Your task to perform on an android device: open sync settings in chrome Image 0: 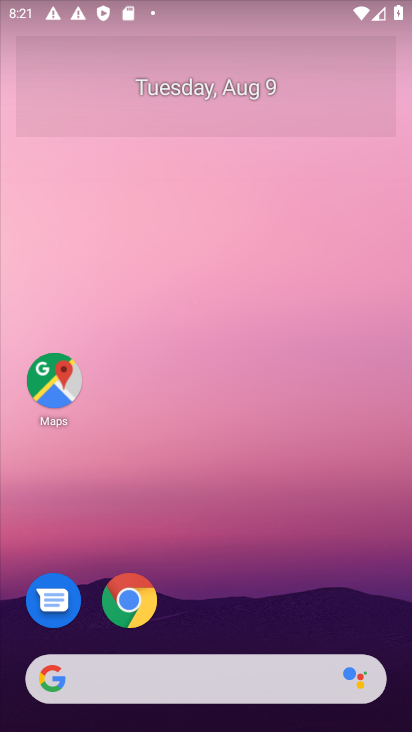
Step 0: click (121, 600)
Your task to perform on an android device: open sync settings in chrome Image 1: 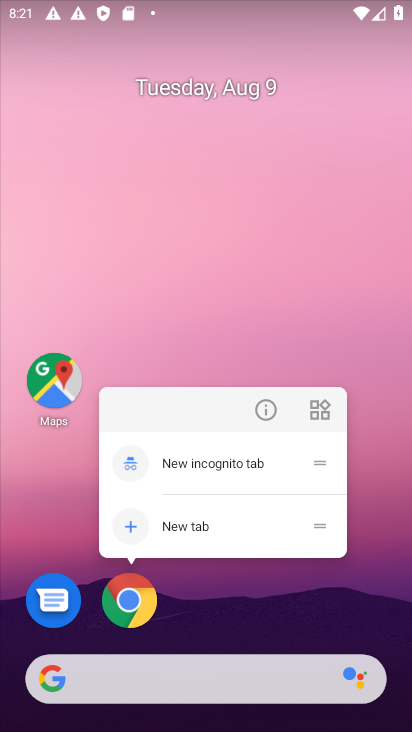
Step 1: click (121, 600)
Your task to perform on an android device: open sync settings in chrome Image 2: 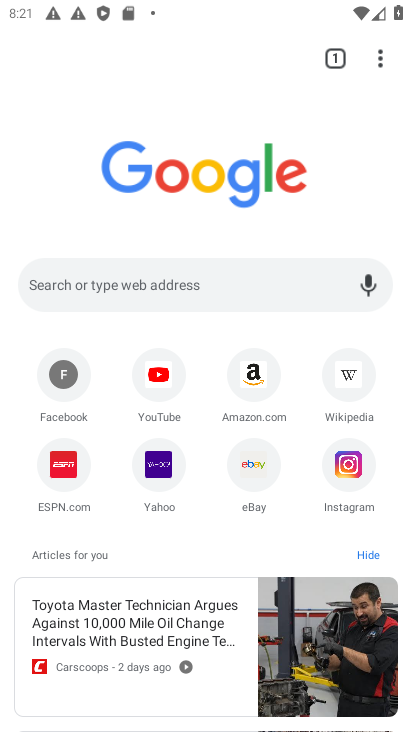
Step 2: drag from (387, 60) to (165, 494)
Your task to perform on an android device: open sync settings in chrome Image 3: 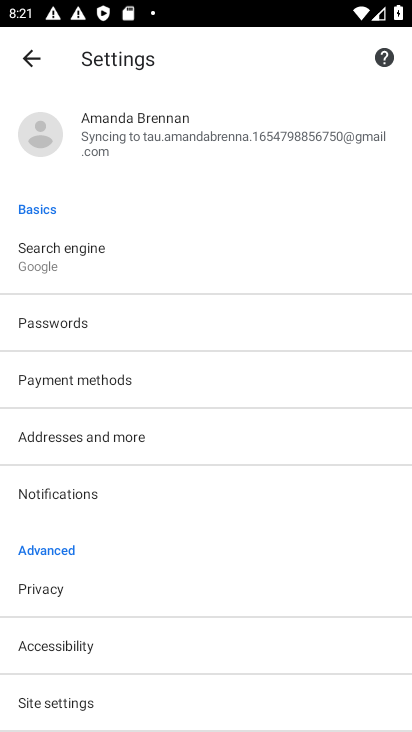
Step 3: click (169, 126)
Your task to perform on an android device: open sync settings in chrome Image 4: 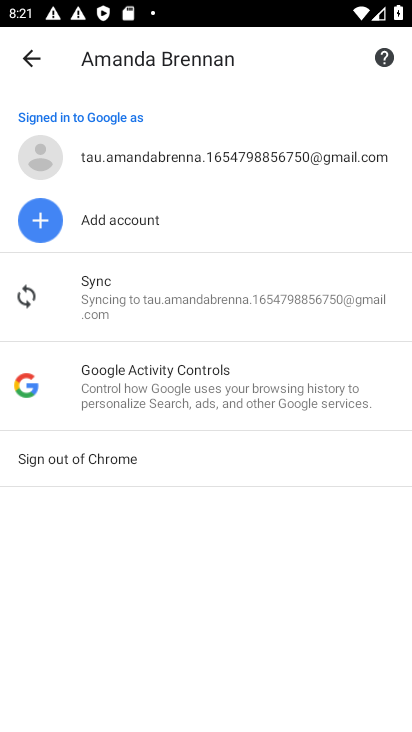
Step 4: click (155, 304)
Your task to perform on an android device: open sync settings in chrome Image 5: 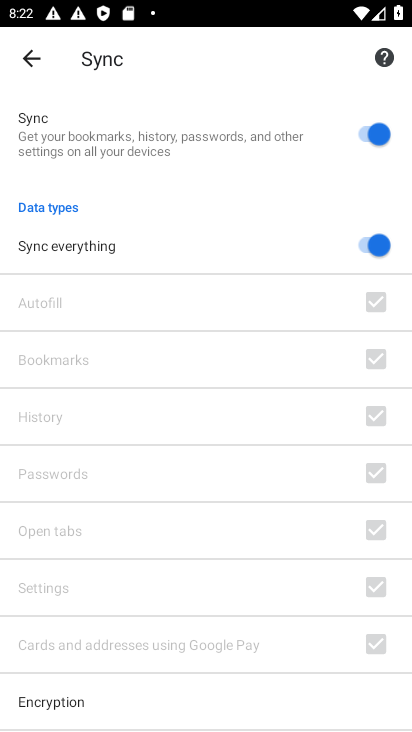
Step 5: task complete